Your task to perform on an android device: Open Chrome and go to settings Image 0: 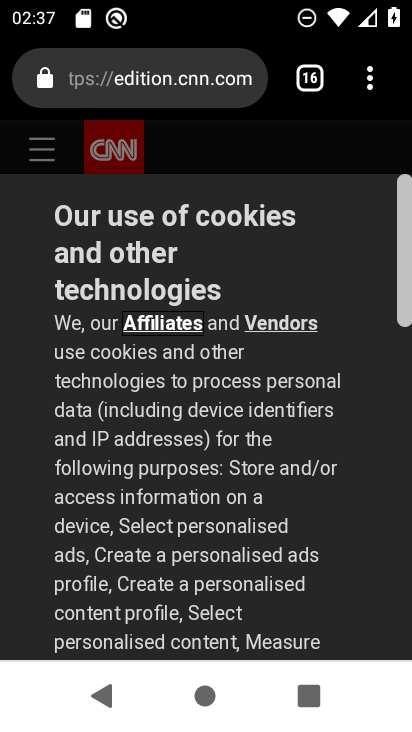
Step 0: press home button
Your task to perform on an android device: Open Chrome and go to settings Image 1: 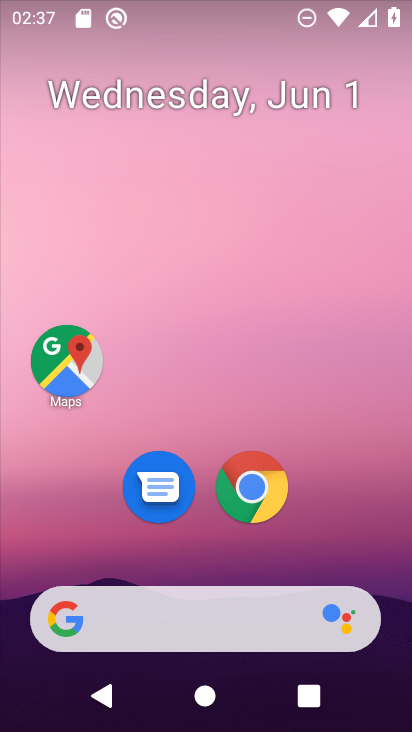
Step 1: click (267, 478)
Your task to perform on an android device: Open Chrome and go to settings Image 2: 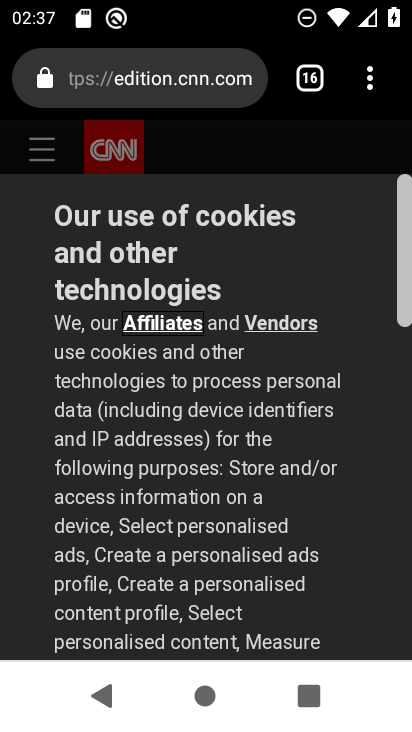
Step 2: click (360, 72)
Your task to perform on an android device: Open Chrome and go to settings Image 3: 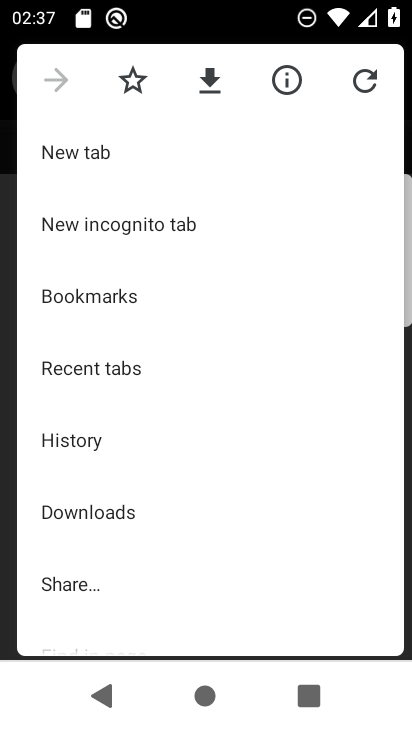
Step 3: drag from (244, 529) to (271, 197)
Your task to perform on an android device: Open Chrome and go to settings Image 4: 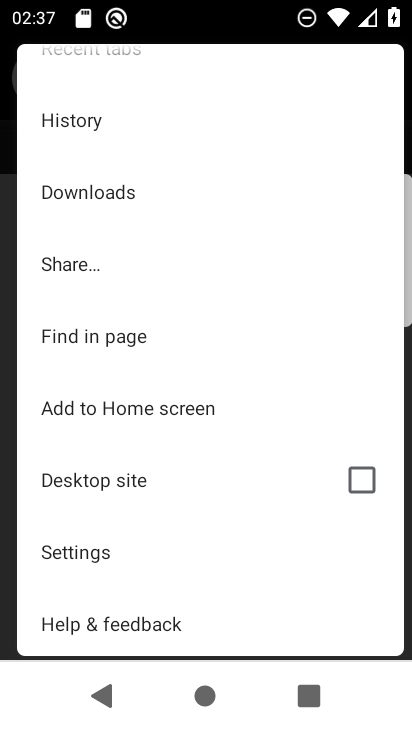
Step 4: click (107, 561)
Your task to perform on an android device: Open Chrome and go to settings Image 5: 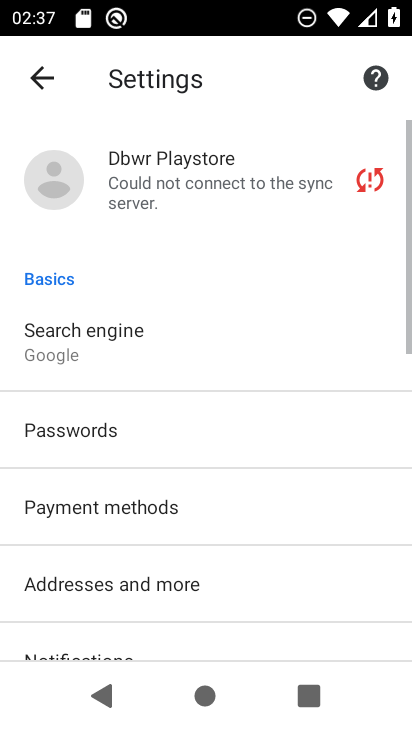
Step 5: task complete